Your task to perform on an android device: Search for sushi restaurants on Maps Image 0: 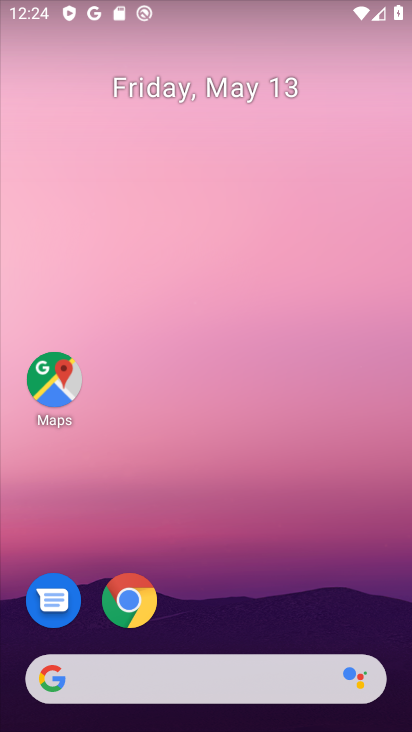
Step 0: drag from (178, 604) to (125, 10)
Your task to perform on an android device: Search for sushi restaurants on Maps Image 1: 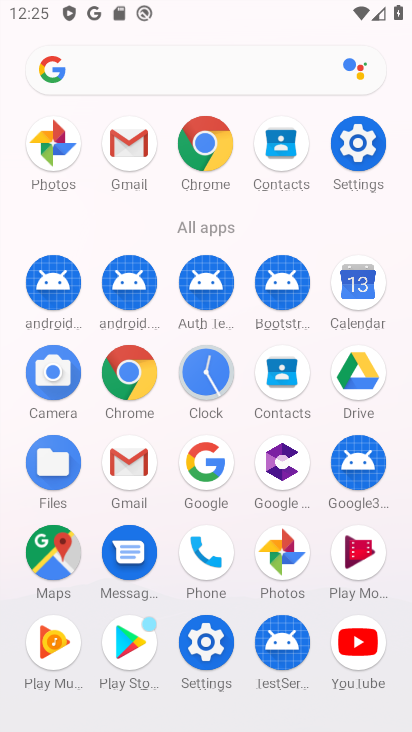
Step 1: click (54, 539)
Your task to perform on an android device: Search for sushi restaurants on Maps Image 2: 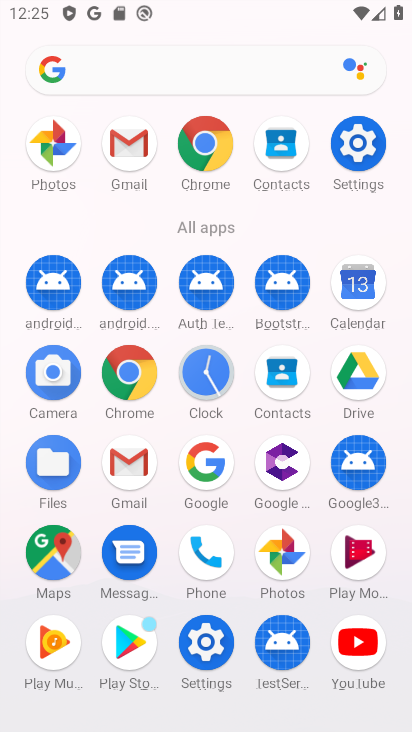
Step 2: click (54, 539)
Your task to perform on an android device: Search for sushi restaurants on Maps Image 3: 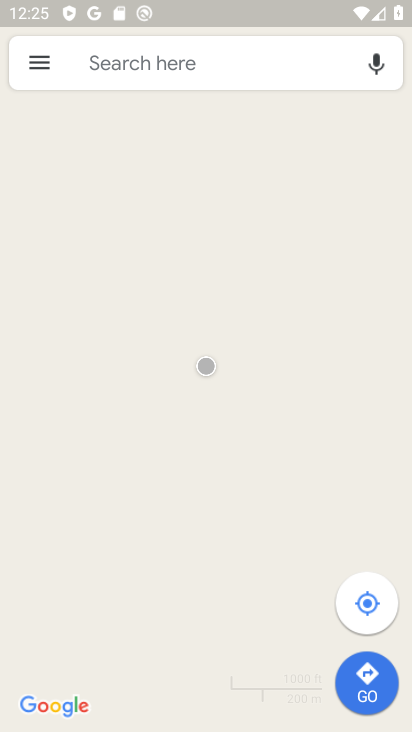
Step 3: click (126, 81)
Your task to perform on an android device: Search for sushi restaurants on Maps Image 4: 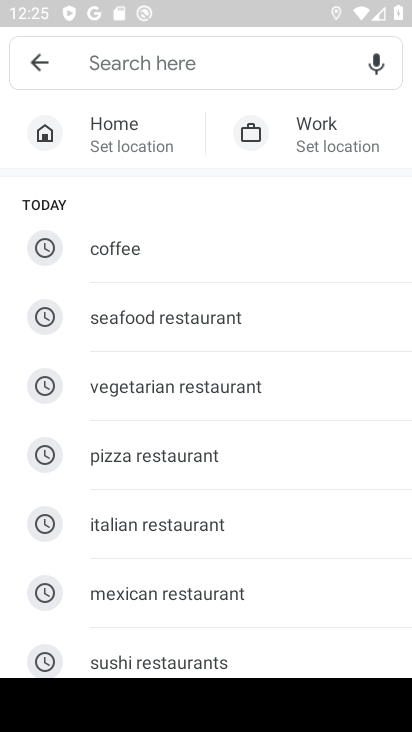
Step 4: click (132, 653)
Your task to perform on an android device: Search for sushi restaurants on Maps Image 5: 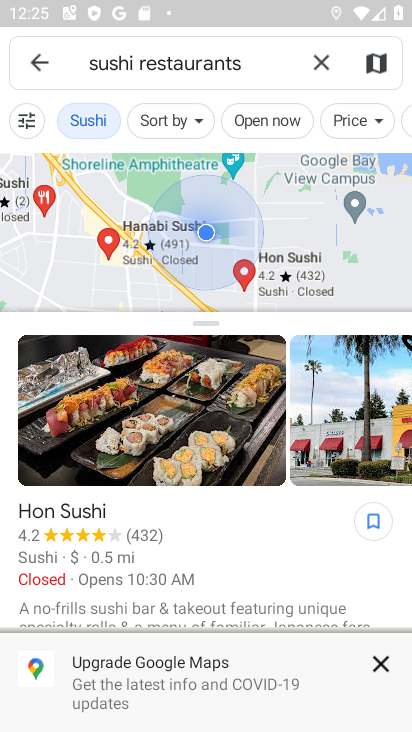
Step 5: task complete